Your task to perform on an android device: empty trash in the gmail app Image 0: 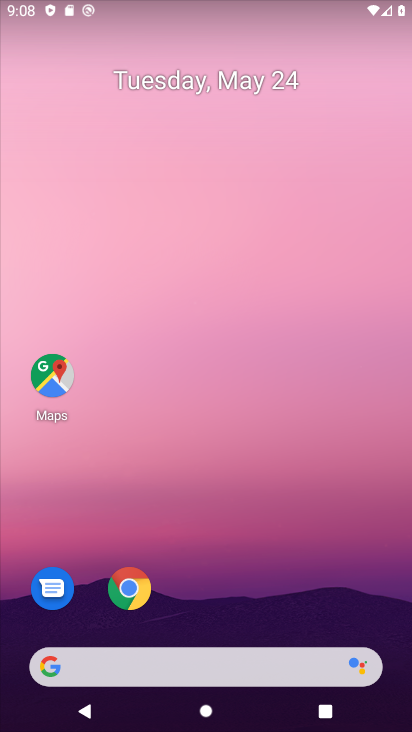
Step 0: drag from (240, 552) to (302, 101)
Your task to perform on an android device: empty trash in the gmail app Image 1: 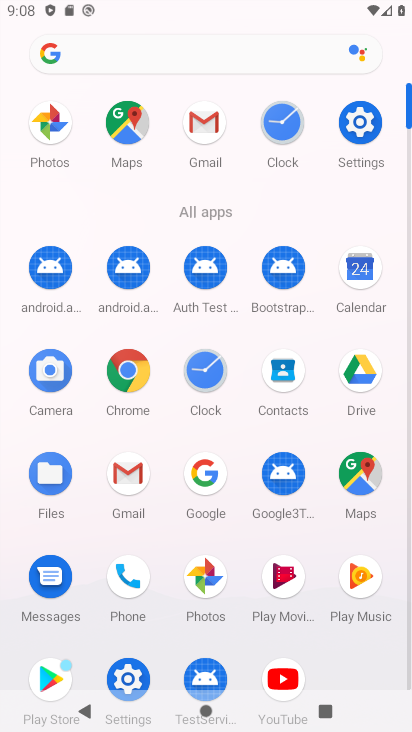
Step 1: click (140, 450)
Your task to perform on an android device: empty trash in the gmail app Image 2: 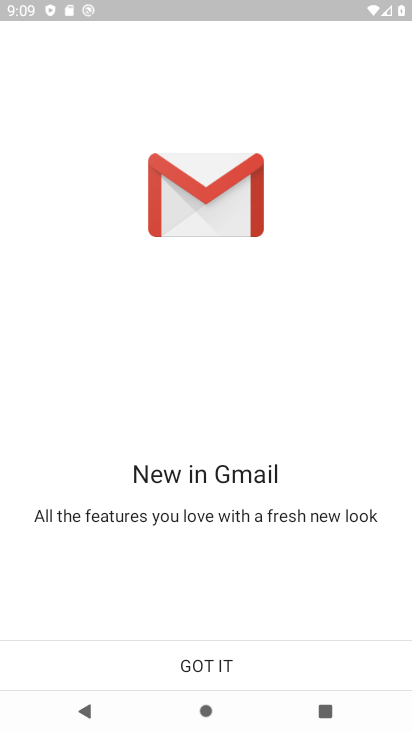
Step 2: click (193, 666)
Your task to perform on an android device: empty trash in the gmail app Image 3: 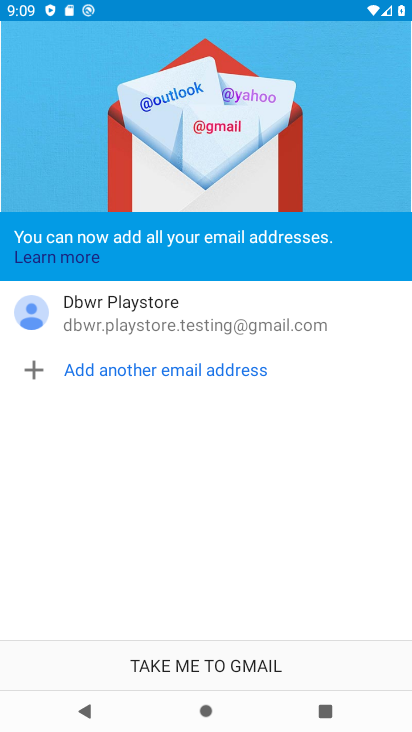
Step 3: click (185, 664)
Your task to perform on an android device: empty trash in the gmail app Image 4: 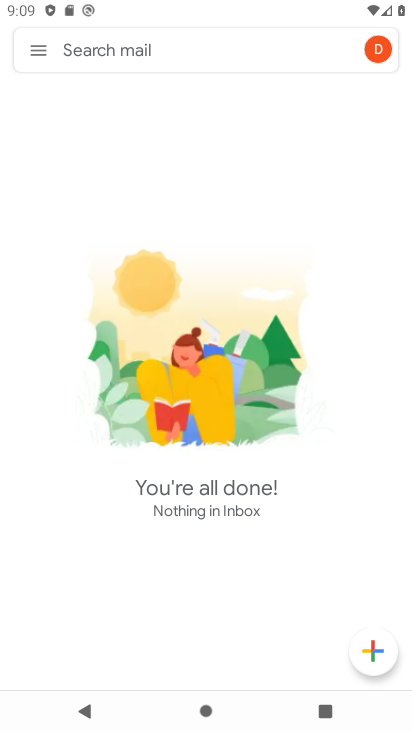
Step 4: click (39, 45)
Your task to perform on an android device: empty trash in the gmail app Image 5: 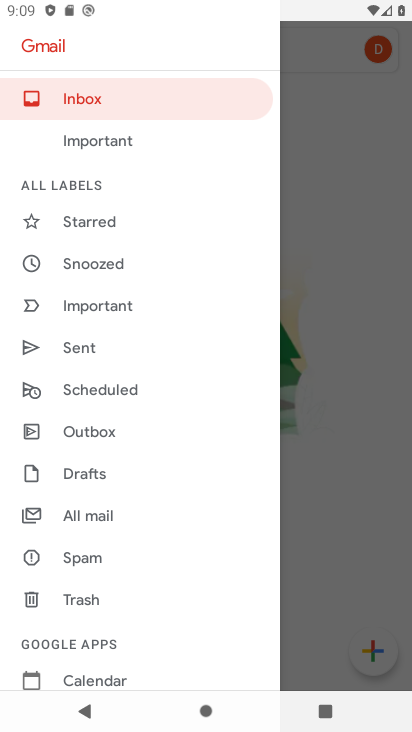
Step 5: click (78, 603)
Your task to perform on an android device: empty trash in the gmail app Image 6: 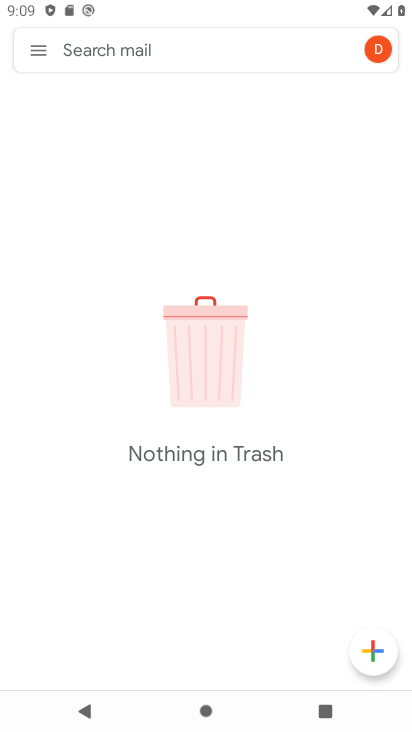
Step 6: task complete